Your task to perform on an android device: search for starred emails in the gmail app Image 0: 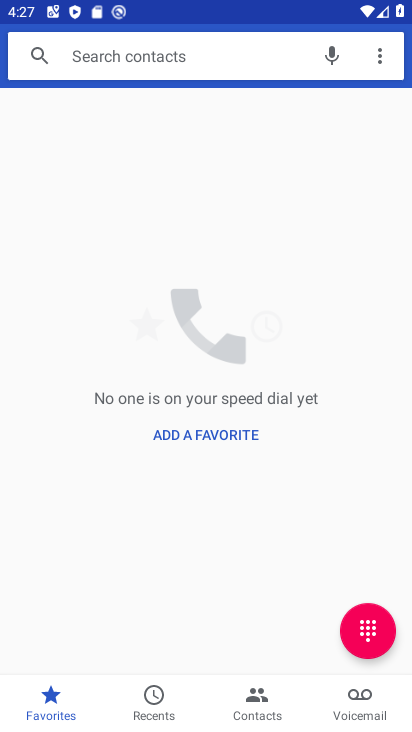
Step 0: press home button
Your task to perform on an android device: search for starred emails in the gmail app Image 1: 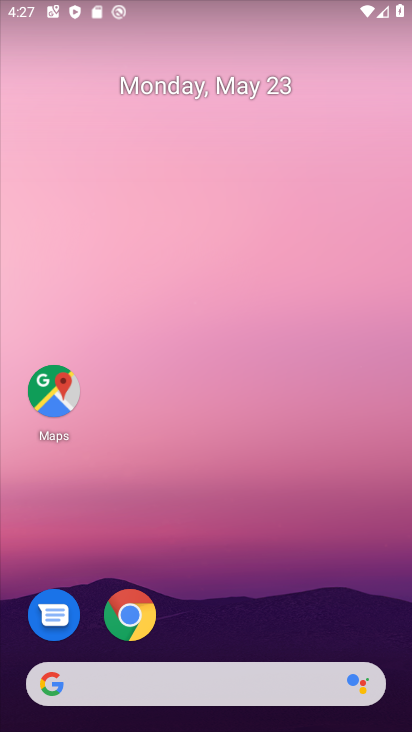
Step 1: drag from (249, 565) to (256, 27)
Your task to perform on an android device: search for starred emails in the gmail app Image 2: 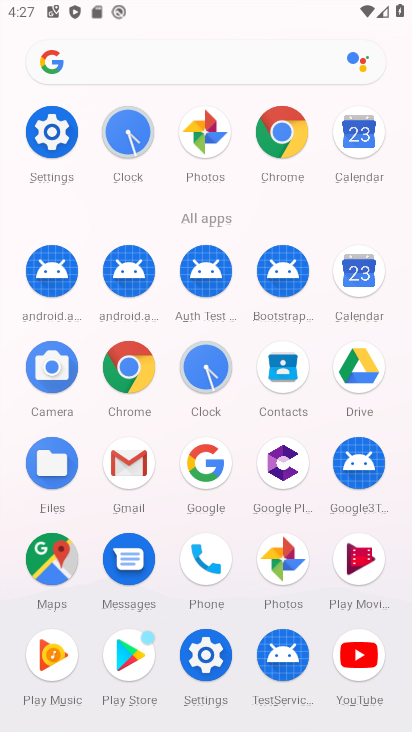
Step 2: click (131, 458)
Your task to perform on an android device: search for starred emails in the gmail app Image 3: 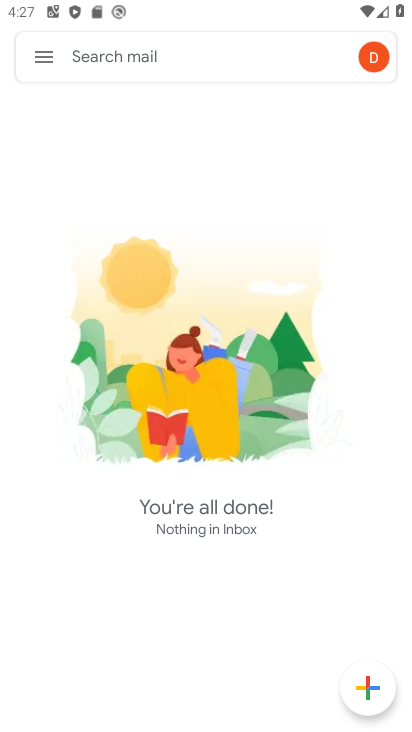
Step 3: click (46, 56)
Your task to perform on an android device: search for starred emails in the gmail app Image 4: 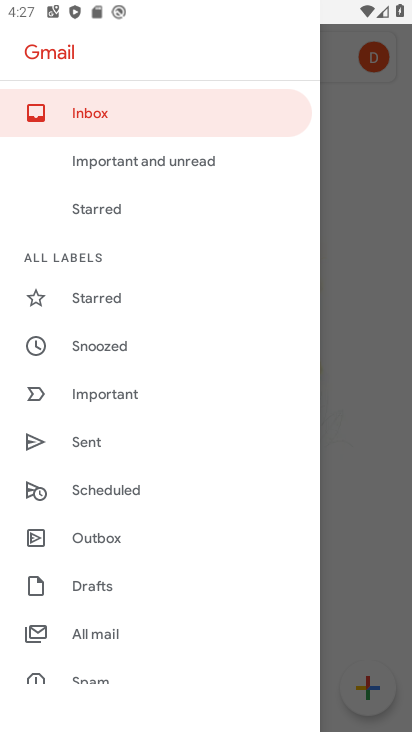
Step 4: click (93, 289)
Your task to perform on an android device: search for starred emails in the gmail app Image 5: 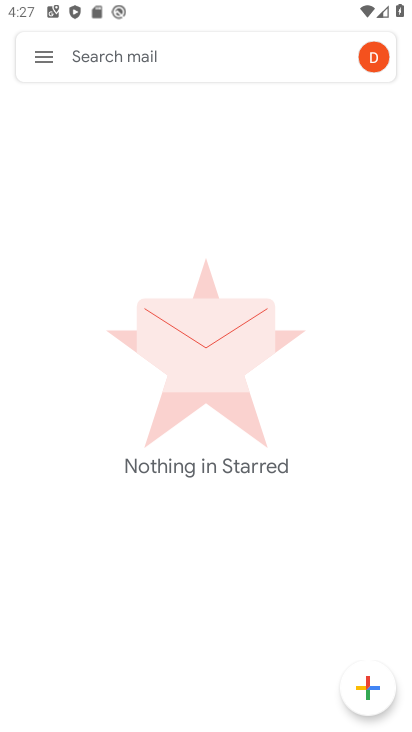
Step 5: task complete